Your task to perform on an android device: Search for sushi restaurants on Maps Image 0: 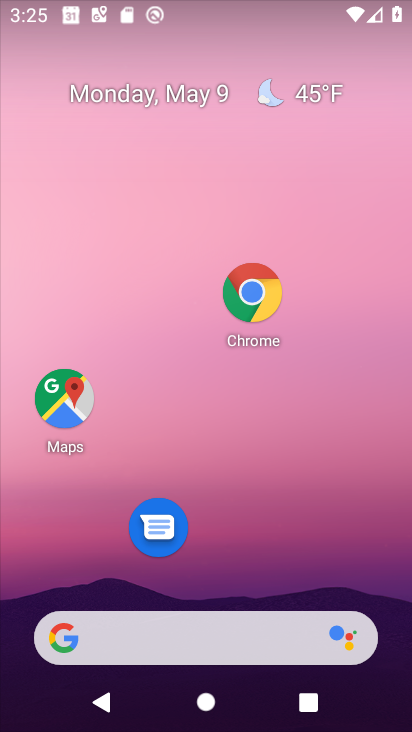
Step 0: drag from (337, 661) to (343, 345)
Your task to perform on an android device: Search for sushi restaurants on Maps Image 1: 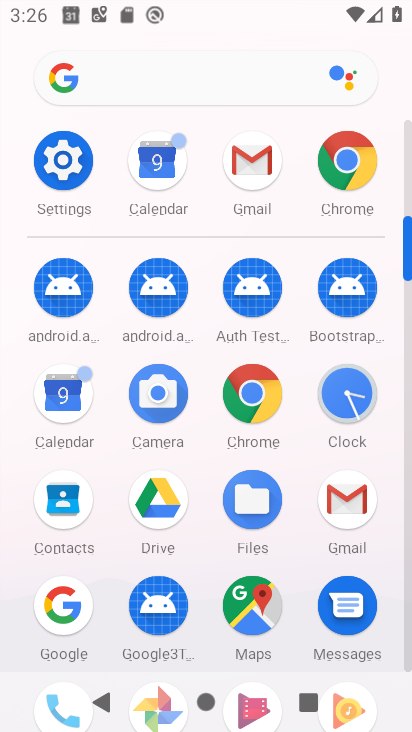
Step 1: click (355, 161)
Your task to perform on an android device: Search for sushi restaurants on Maps Image 2: 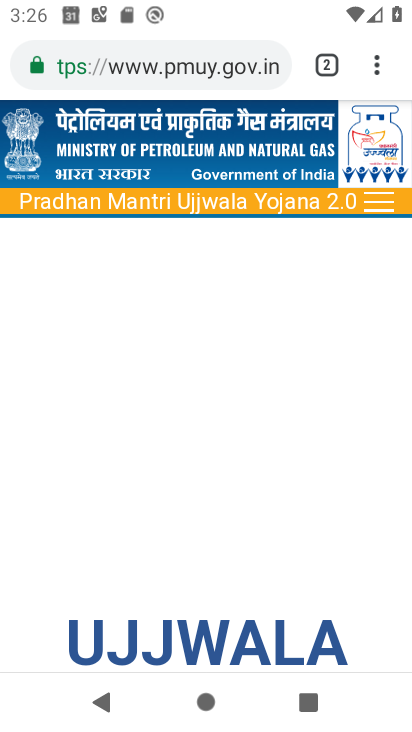
Step 2: press home button
Your task to perform on an android device: Search for sushi restaurants on Maps Image 3: 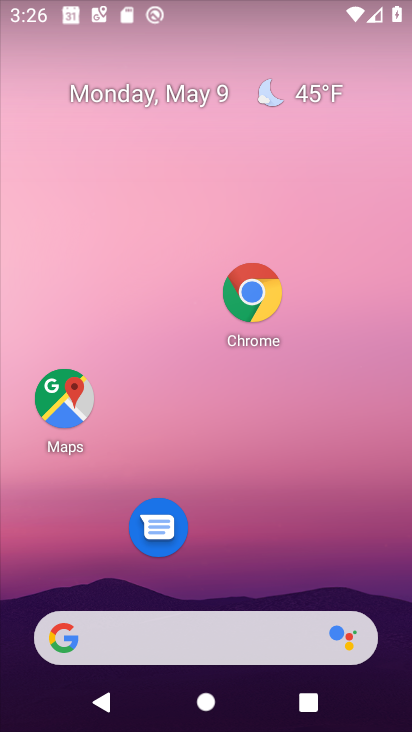
Step 3: click (51, 413)
Your task to perform on an android device: Search for sushi restaurants on Maps Image 4: 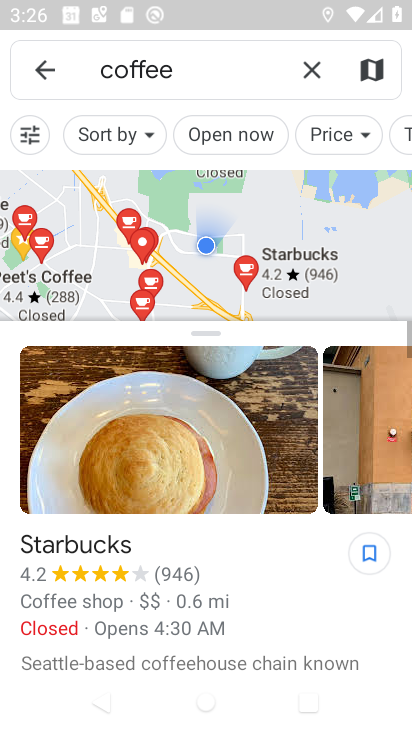
Step 4: click (301, 73)
Your task to perform on an android device: Search for sushi restaurants on Maps Image 5: 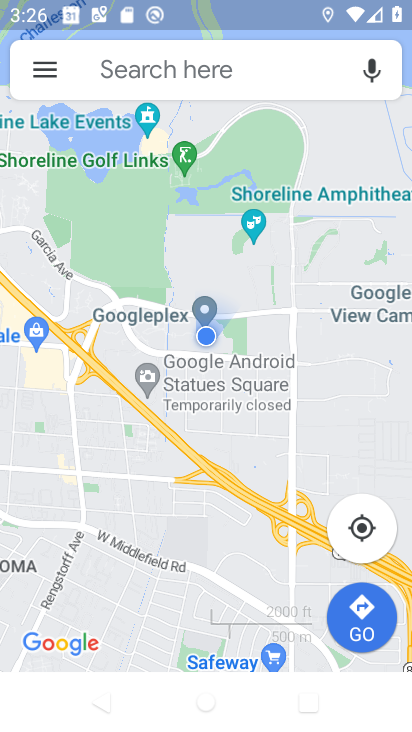
Step 5: click (251, 92)
Your task to perform on an android device: Search for sushi restaurants on Maps Image 6: 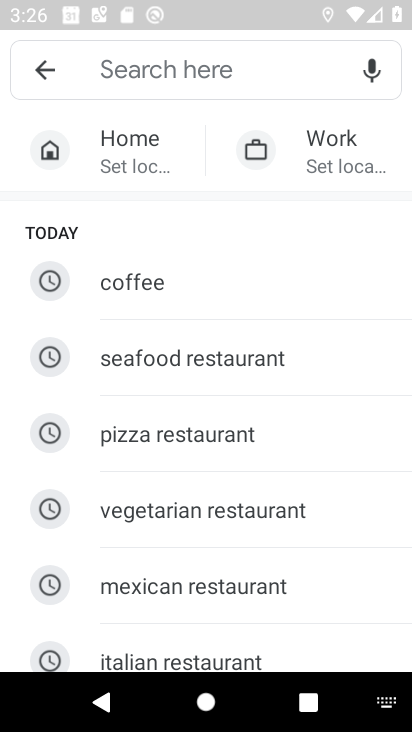
Step 6: drag from (237, 413) to (263, 287)
Your task to perform on an android device: Search for sushi restaurants on Maps Image 7: 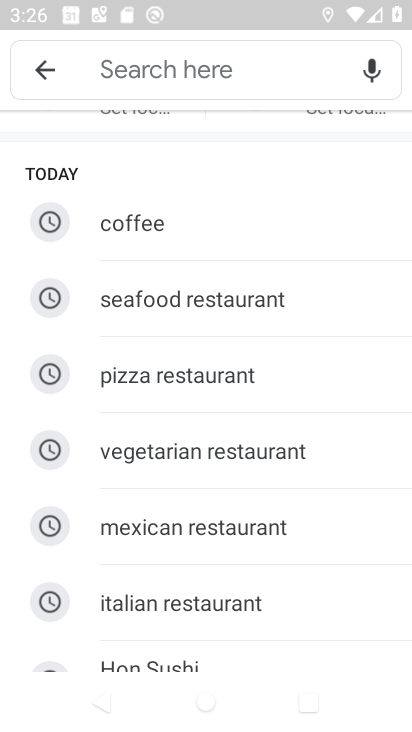
Step 7: drag from (266, 468) to (285, 302)
Your task to perform on an android device: Search for sushi restaurants on Maps Image 8: 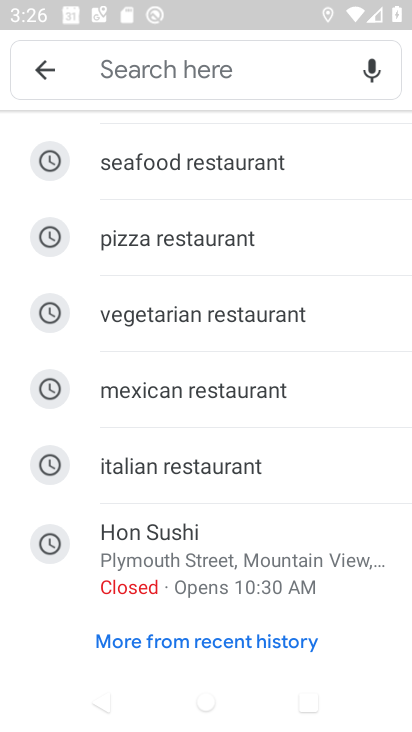
Step 8: click (242, 62)
Your task to perform on an android device: Search for sushi restaurants on Maps Image 9: 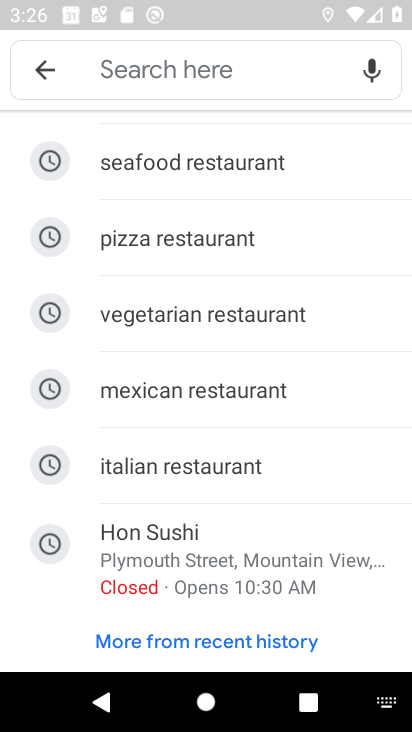
Step 9: type "sushi restaurants"
Your task to perform on an android device: Search for sushi restaurants on Maps Image 10: 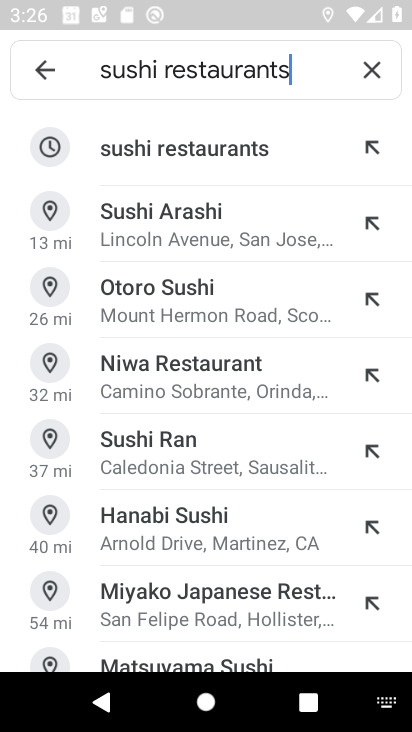
Step 10: click (301, 136)
Your task to perform on an android device: Search for sushi restaurants on Maps Image 11: 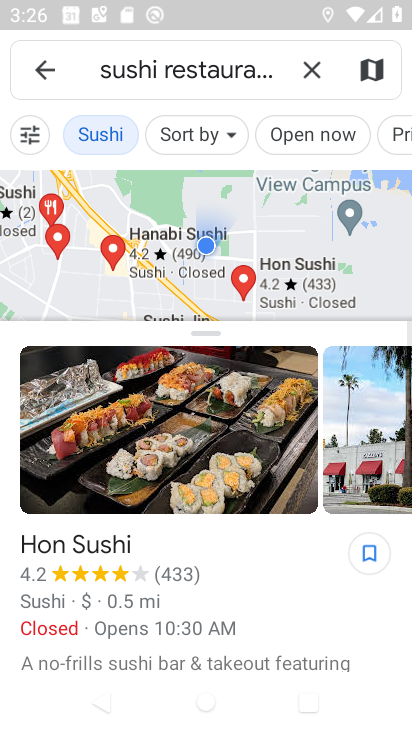
Step 11: task complete